Your task to perform on an android device: Open Android settings Image 0: 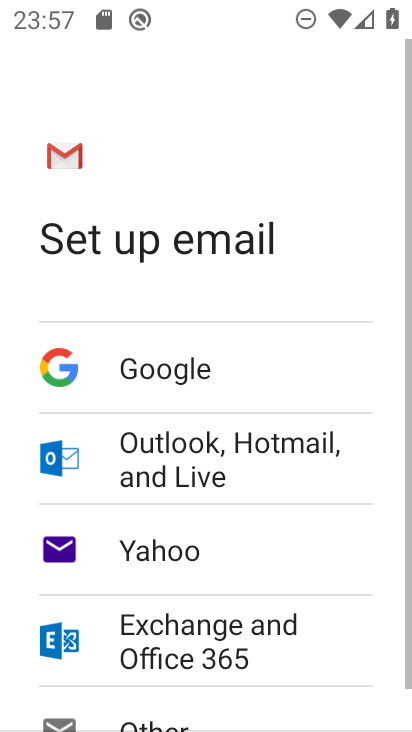
Step 0: press home button
Your task to perform on an android device: Open Android settings Image 1: 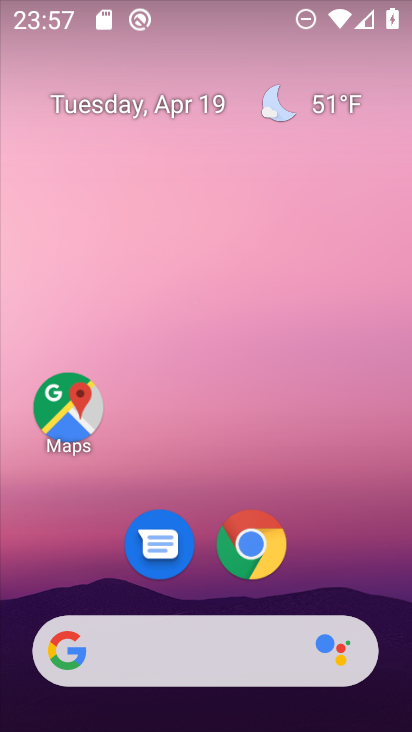
Step 1: drag from (341, 535) to (330, 242)
Your task to perform on an android device: Open Android settings Image 2: 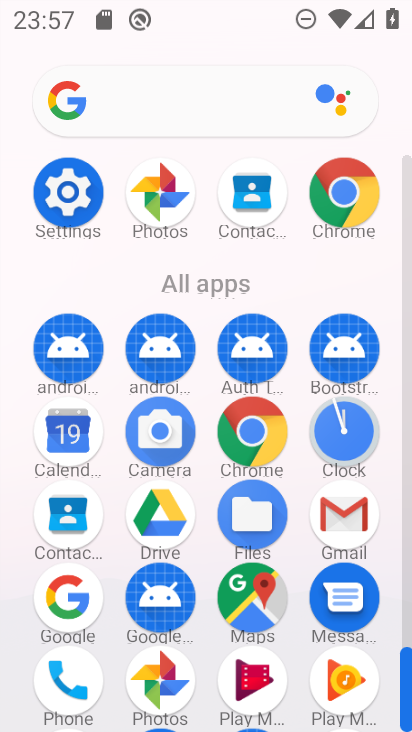
Step 2: click (72, 210)
Your task to perform on an android device: Open Android settings Image 3: 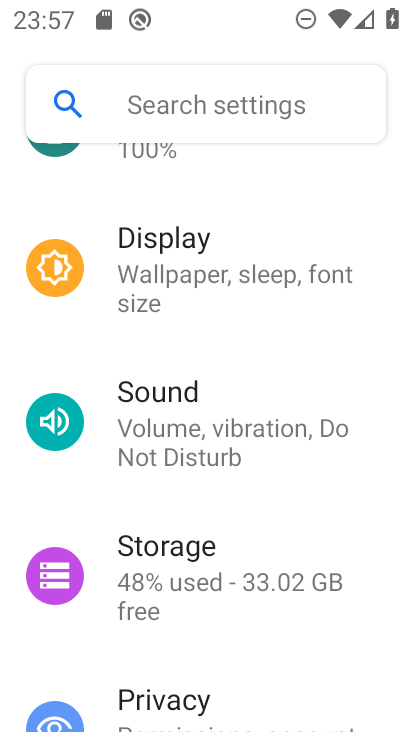
Step 3: drag from (372, 217) to (377, 417)
Your task to perform on an android device: Open Android settings Image 4: 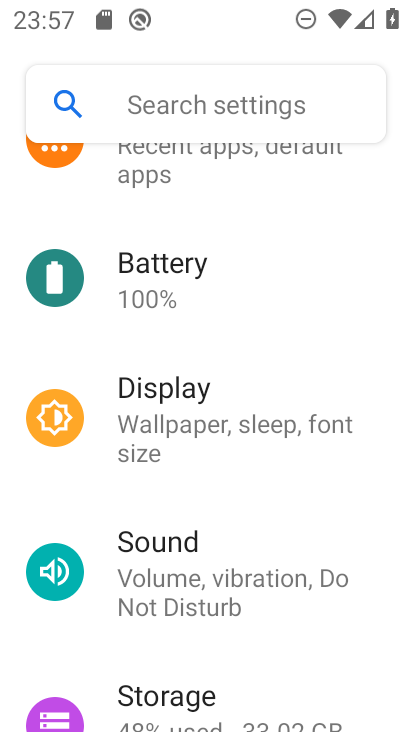
Step 4: drag from (372, 235) to (370, 453)
Your task to perform on an android device: Open Android settings Image 5: 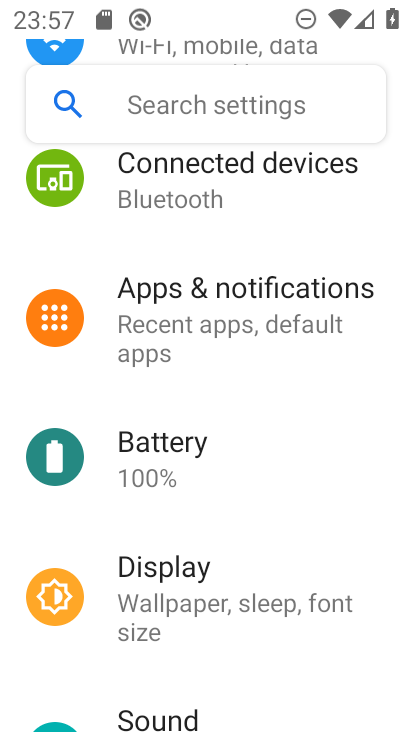
Step 5: drag from (370, 231) to (365, 485)
Your task to perform on an android device: Open Android settings Image 6: 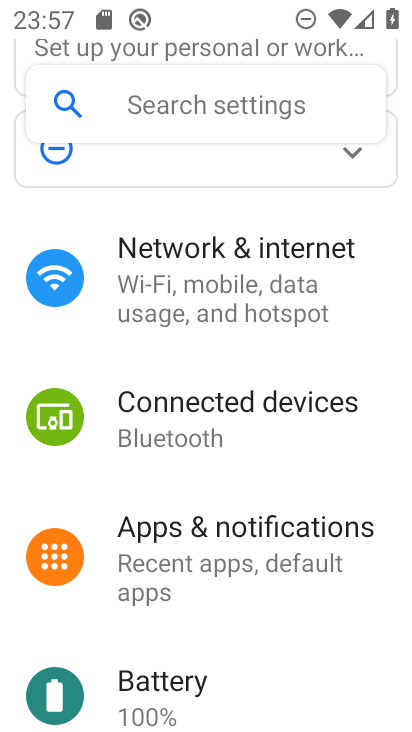
Step 6: drag from (362, 640) to (384, 402)
Your task to perform on an android device: Open Android settings Image 7: 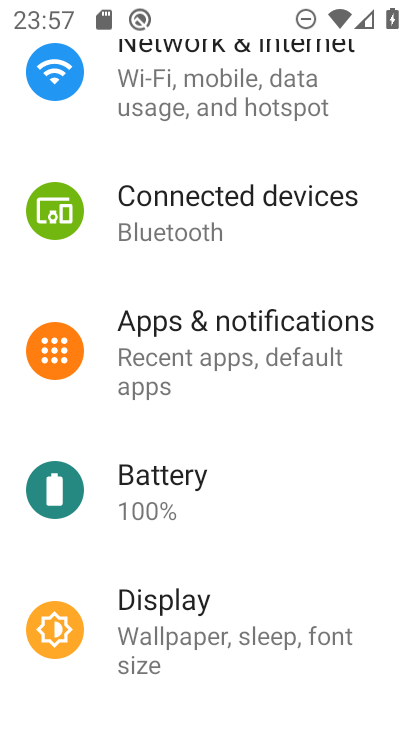
Step 7: drag from (360, 641) to (358, 429)
Your task to perform on an android device: Open Android settings Image 8: 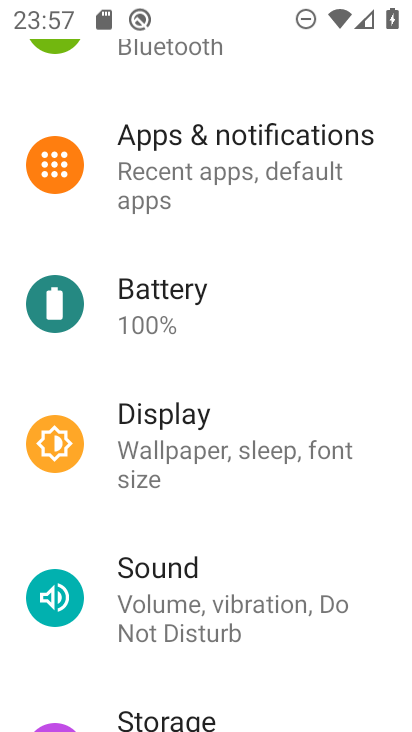
Step 8: drag from (368, 645) to (382, 451)
Your task to perform on an android device: Open Android settings Image 9: 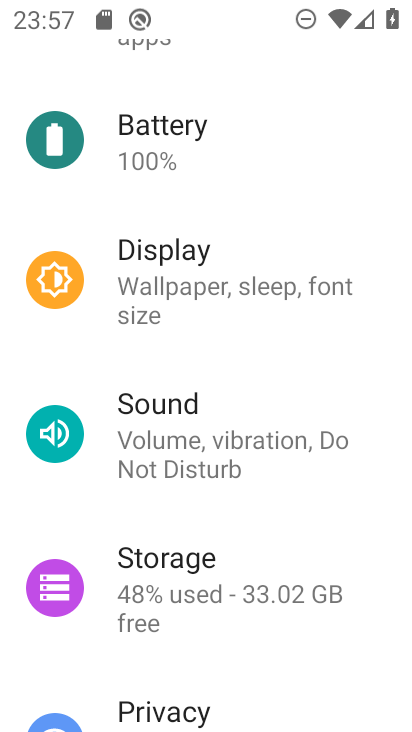
Step 9: drag from (372, 641) to (367, 459)
Your task to perform on an android device: Open Android settings Image 10: 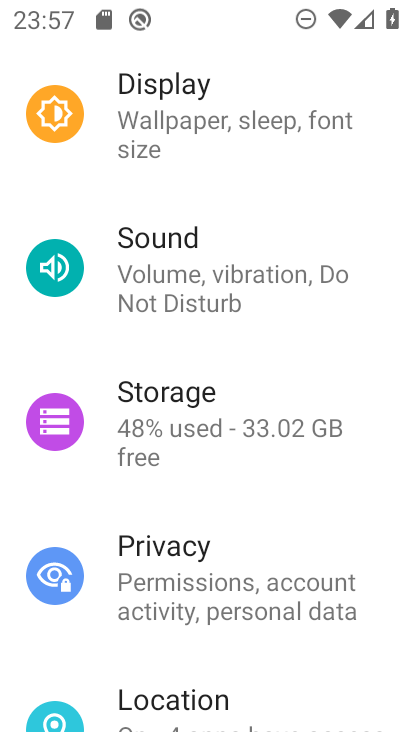
Step 10: drag from (383, 652) to (364, 457)
Your task to perform on an android device: Open Android settings Image 11: 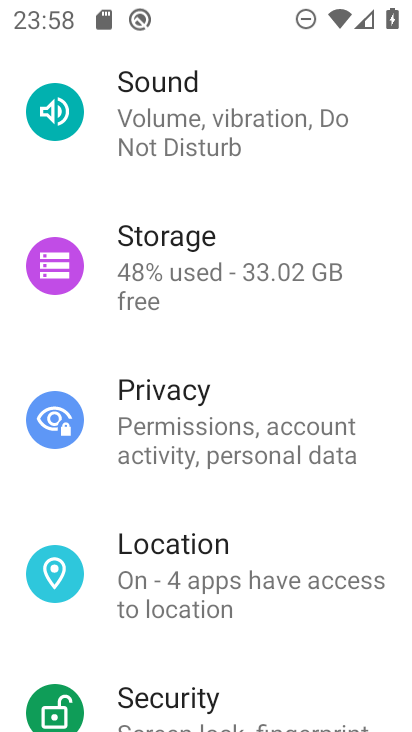
Step 11: drag from (342, 641) to (354, 464)
Your task to perform on an android device: Open Android settings Image 12: 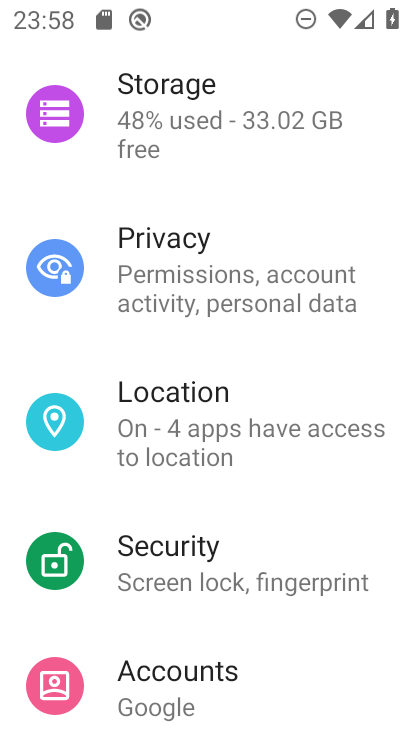
Step 12: drag from (353, 672) to (336, 490)
Your task to perform on an android device: Open Android settings Image 13: 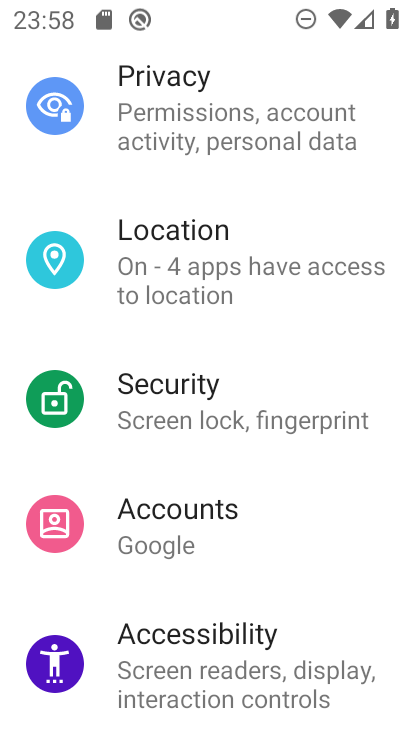
Step 13: drag from (377, 700) to (390, 439)
Your task to perform on an android device: Open Android settings Image 14: 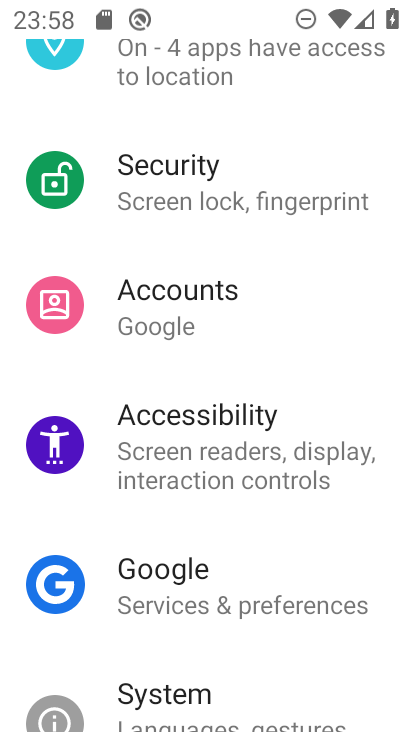
Step 14: drag from (367, 617) to (353, 361)
Your task to perform on an android device: Open Android settings Image 15: 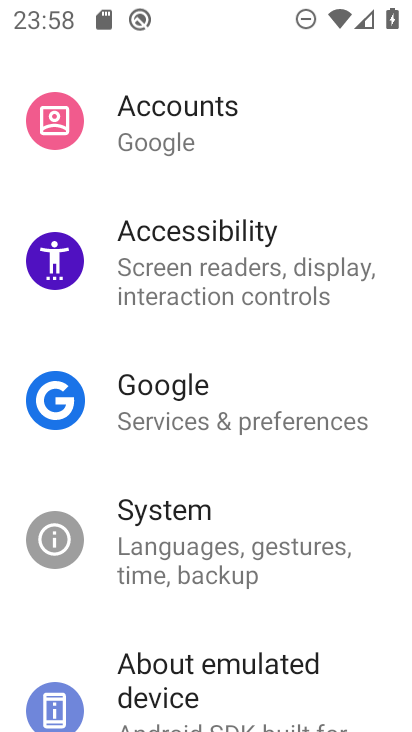
Step 15: click (251, 555)
Your task to perform on an android device: Open Android settings Image 16: 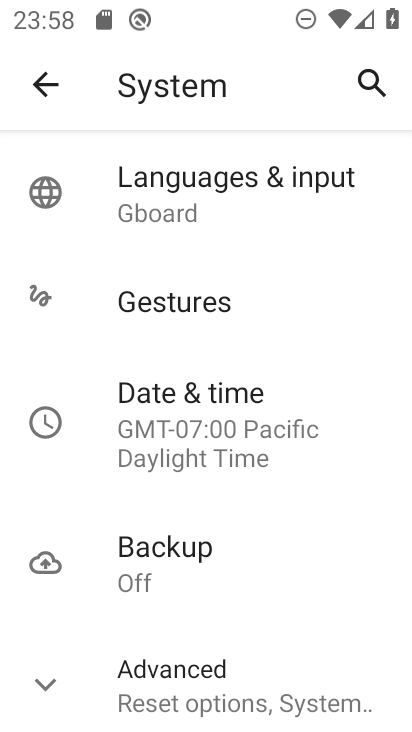
Step 16: click (199, 692)
Your task to perform on an android device: Open Android settings Image 17: 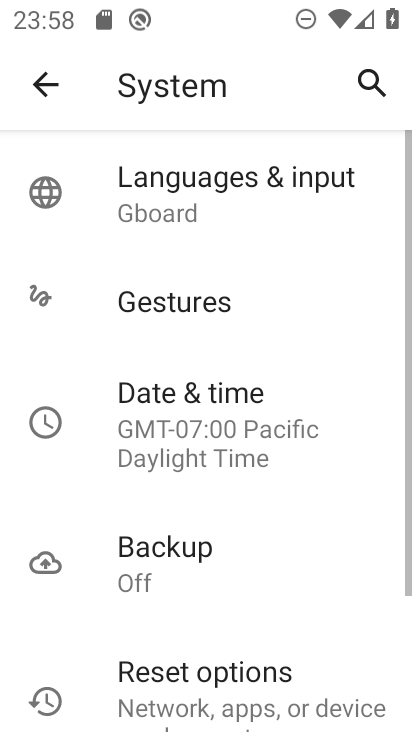
Step 17: task complete